Your task to perform on an android device: Go to ESPN.com Image 0: 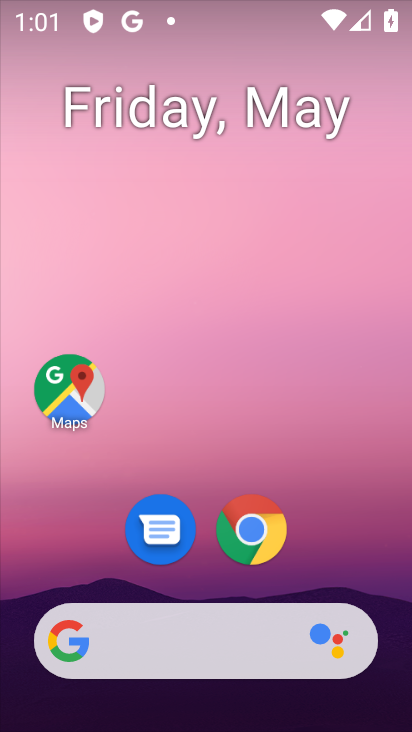
Step 0: click (250, 534)
Your task to perform on an android device: Go to ESPN.com Image 1: 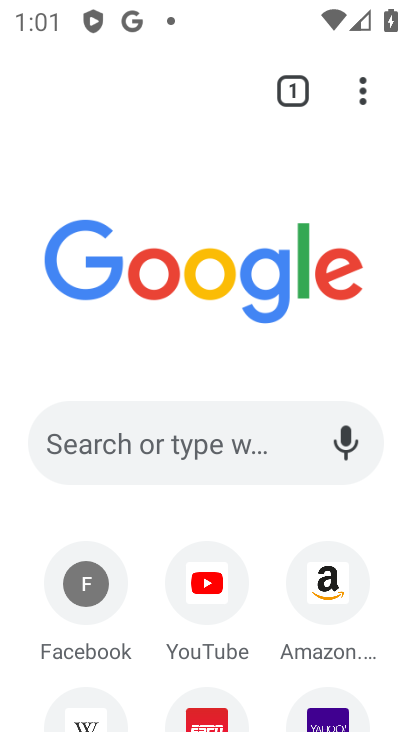
Step 1: drag from (114, 651) to (244, 327)
Your task to perform on an android device: Go to ESPN.com Image 2: 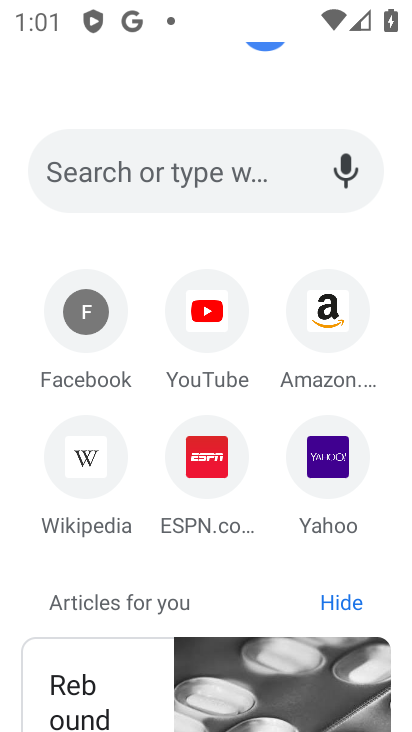
Step 2: click (207, 494)
Your task to perform on an android device: Go to ESPN.com Image 3: 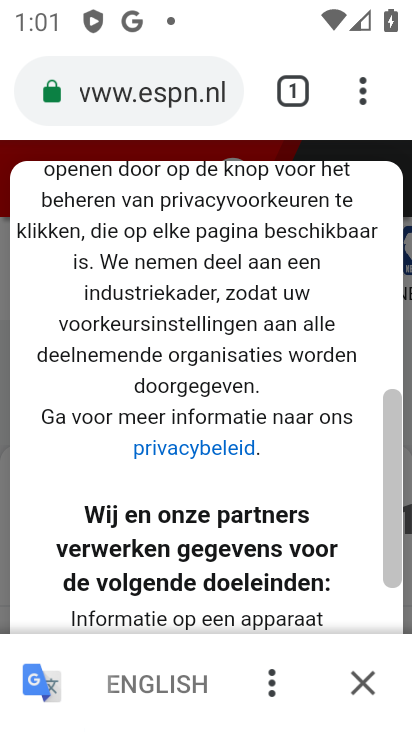
Step 3: click (363, 678)
Your task to perform on an android device: Go to ESPN.com Image 4: 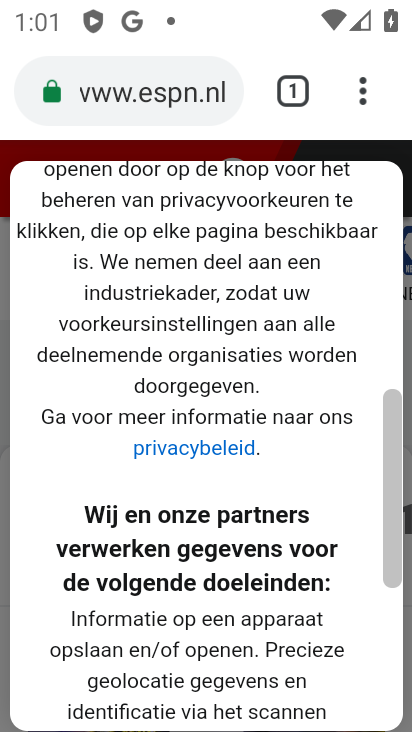
Step 4: drag from (109, 648) to (236, 357)
Your task to perform on an android device: Go to ESPN.com Image 5: 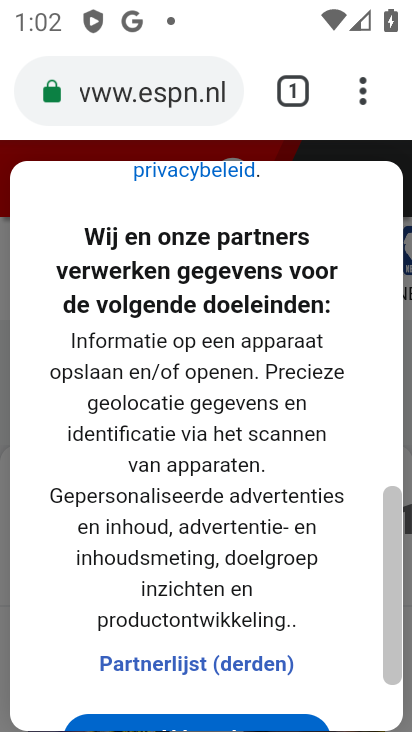
Step 5: drag from (177, 664) to (290, 370)
Your task to perform on an android device: Go to ESPN.com Image 6: 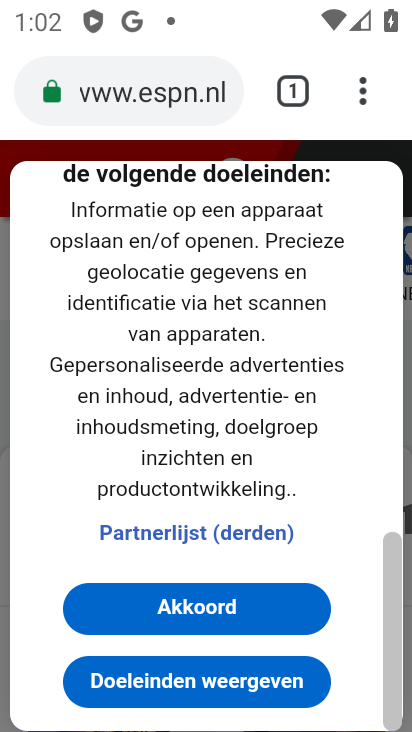
Step 6: click (220, 618)
Your task to perform on an android device: Go to ESPN.com Image 7: 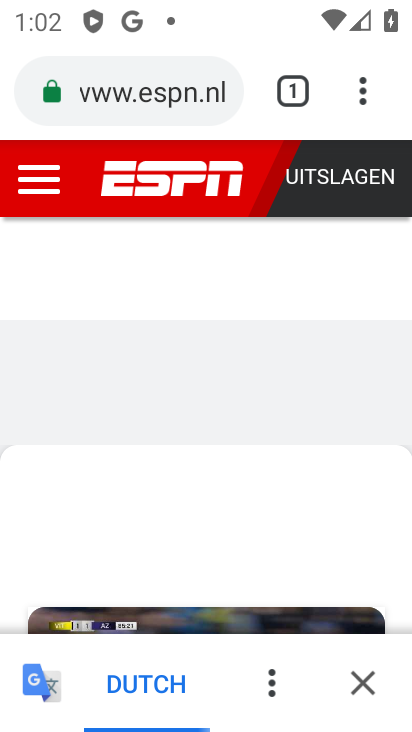
Step 7: task complete